Your task to perform on an android device: turn on airplane mode Image 0: 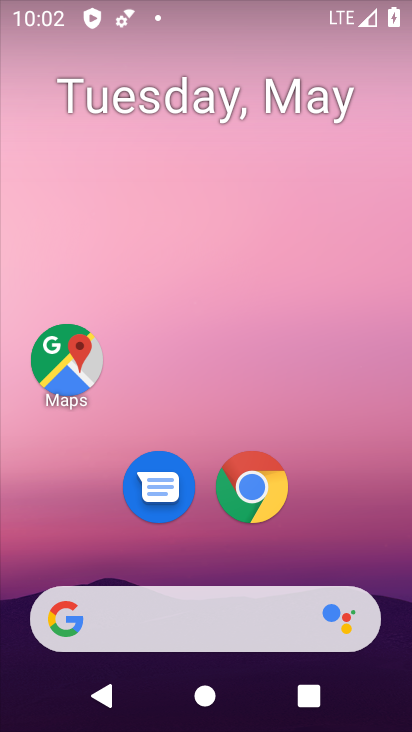
Step 0: drag from (195, 557) to (239, 210)
Your task to perform on an android device: turn on airplane mode Image 1: 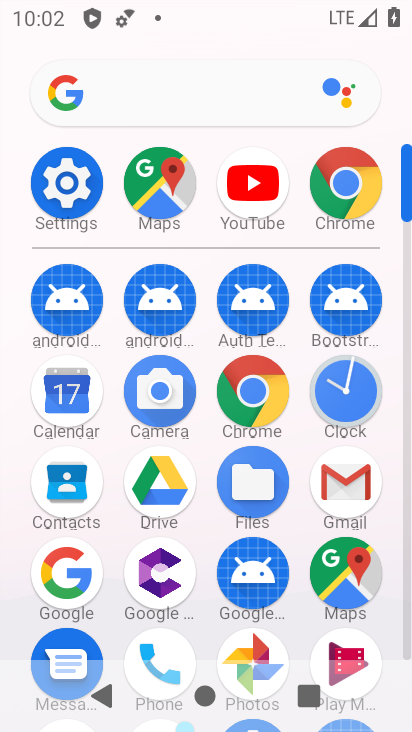
Step 1: click (73, 182)
Your task to perform on an android device: turn on airplane mode Image 2: 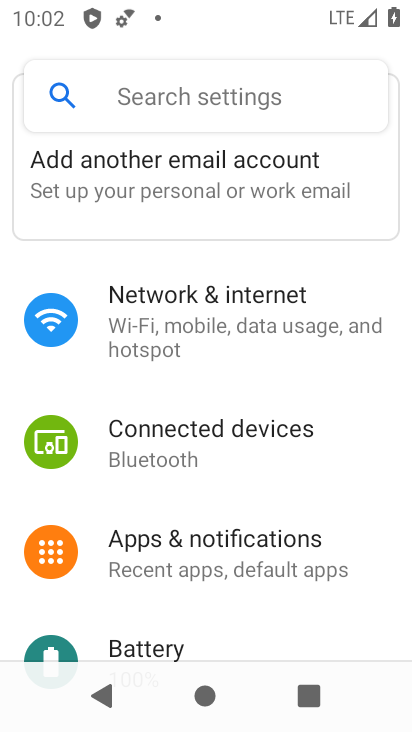
Step 2: click (196, 296)
Your task to perform on an android device: turn on airplane mode Image 3: 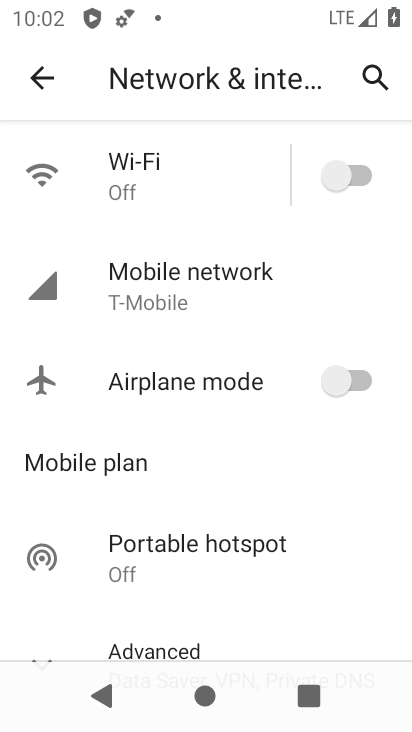
Step 3: click (313, 380)
Your task to perform on an android device: turn on airplane mode Image 4: 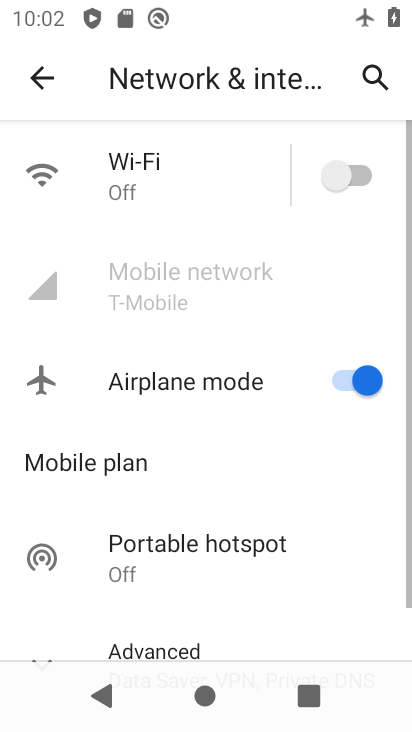
Step 4: task complete